Your task to perform on an android device: open the mobile data screen to see how much data has been used Image 0: 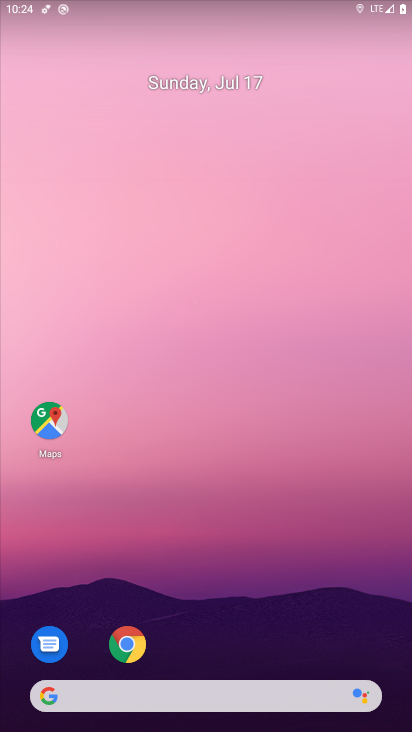
Step 0: drag from (226, 666) to (264, 169)
Your task to perform on an android device: open the mobile data screen to see how much data has been used Image 1: 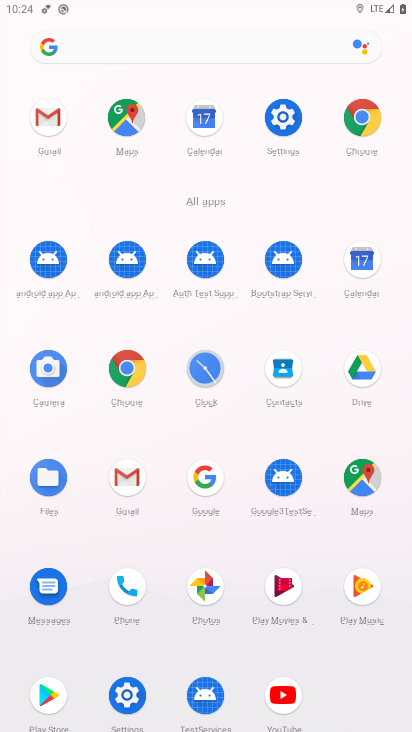
Step 1: click (277, 126)
Your task to perform on an android device: open the mobile data screen to see how much data has been used Image 2: 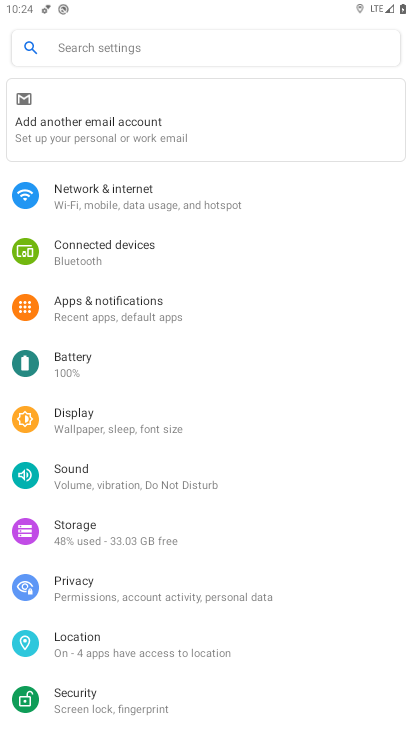
Step 2: click (104, 201)
Your task to perform on an android device: open the mobile data screen to see how much data has been used Image 3: 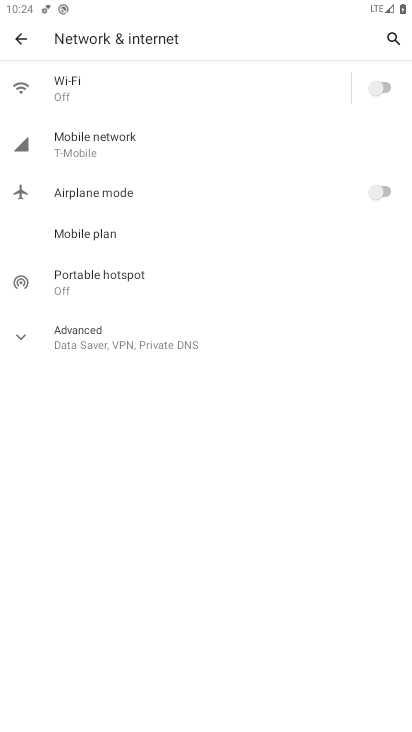
Step 3: click (83, 147)
Your task to perform on an android device: open the mobile data screen to see how much data has been used Image 4: 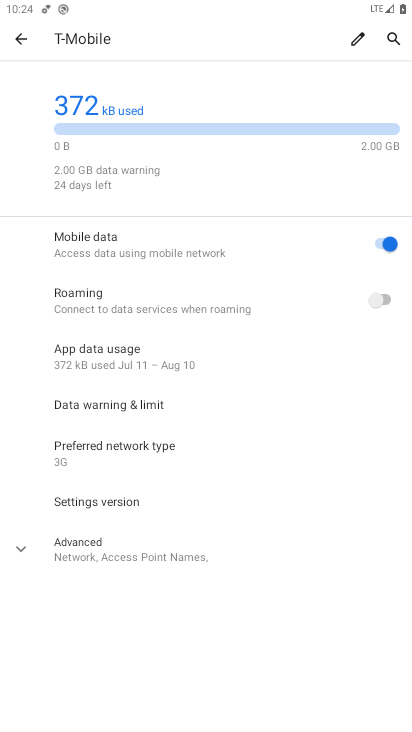
Step 4: click (89, 352)
Your task to perform on an android device: open the mobile data screen to see how much data has been used Image 5: 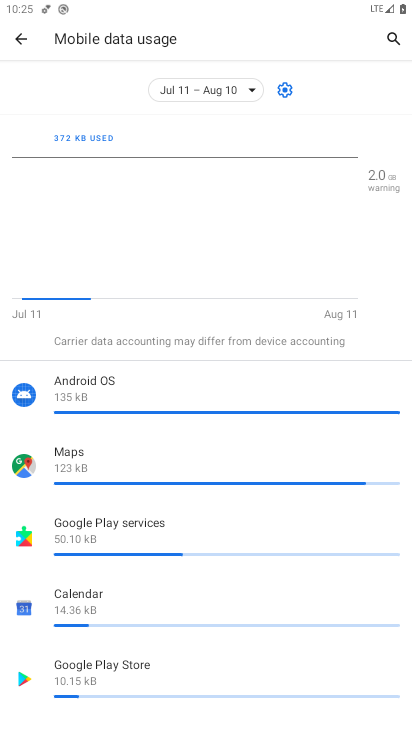
Step 5: task complete